Your task to perform on an android device: What's the weather going to be tomorrow? Image 0: 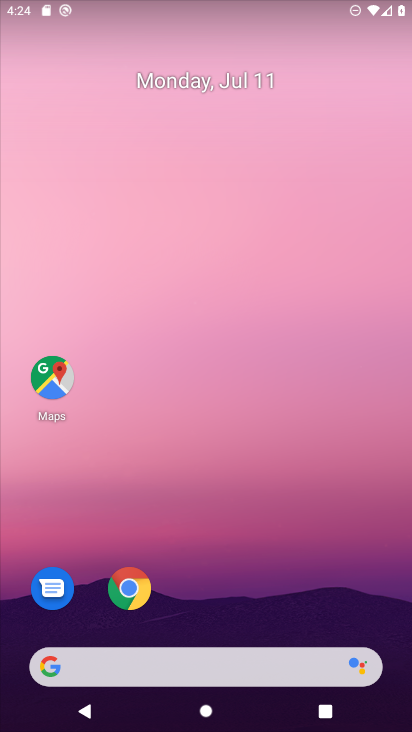
Step 0: click (252, 666)
Your task to perform on an android device: What's the weather going to be tomorrow? Image 1: 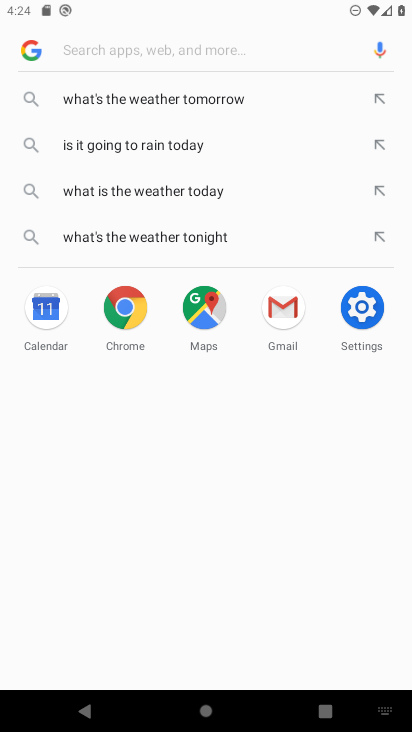
Step 1: click (218, 100)
Your task to perform on an android device: What's the weather going to be tomorrow? Image 2: 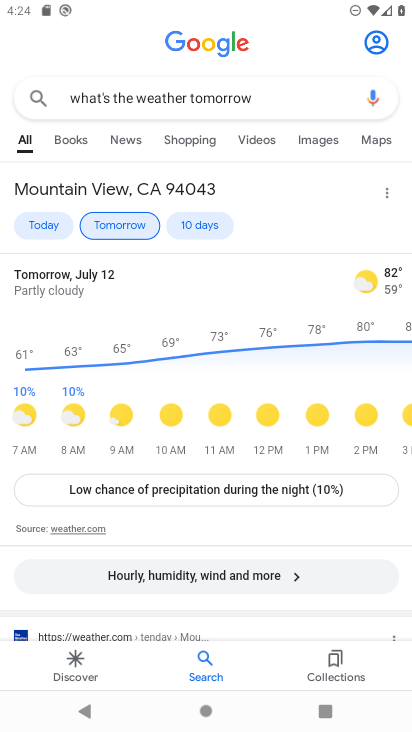
Step 2: task complete